Your task to perform on an android device: Do I have any events tomorrow? Image 0: 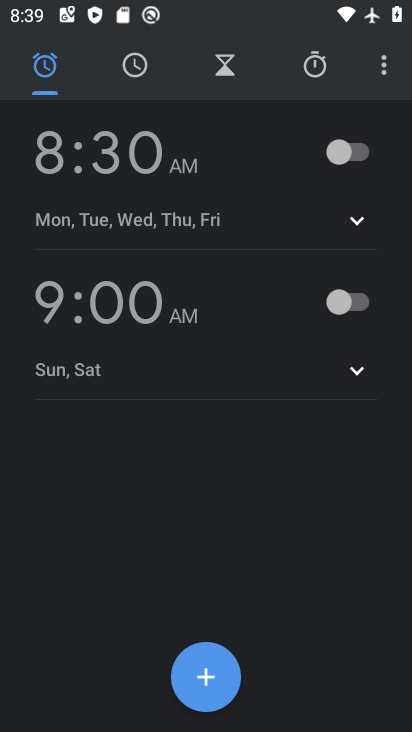
Step 0: press home button
Your task to perform on an android device: Do I have any events tomorrow? Image 1: 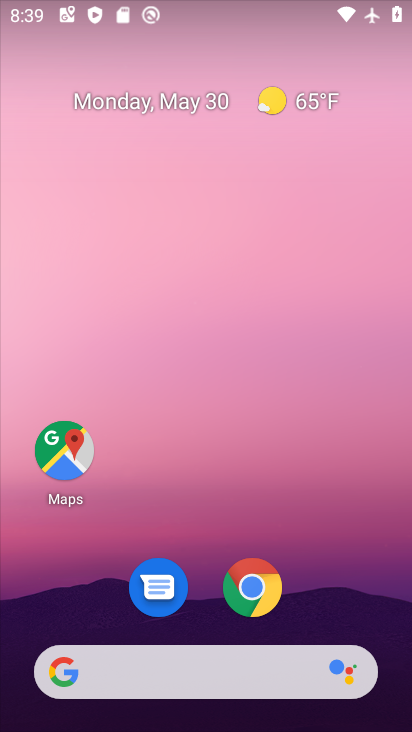
Step 1: drag from (137, 680) to (325, 176)
Your task to perform on an android device: Do I have any events tomorrow? Image 2: 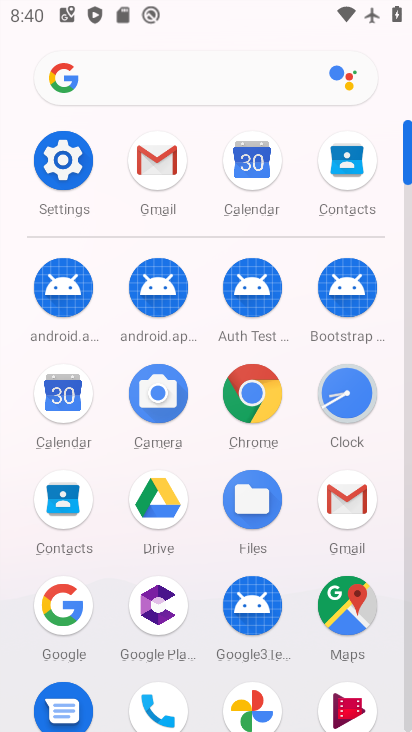
Step 2: click (256, 166)
Your task to perform on an android device: Do I have any events tomorrow? Image 3: 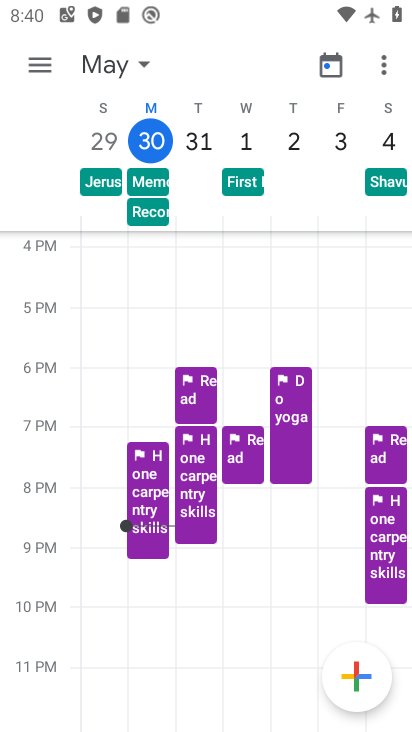
Step 3: click (111, 69)
Your task to perform on an android device: Do I have any events tomorrow? Image 4: 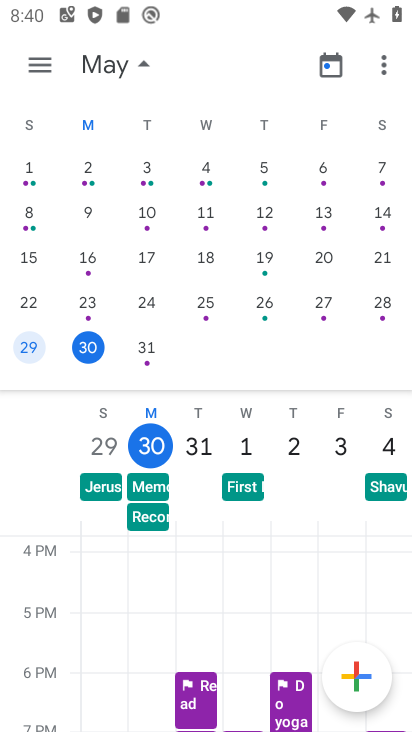
Step 4: click (143, 351)
Your task to perform on an android device: Do I have any events tomorrow? Image 5: 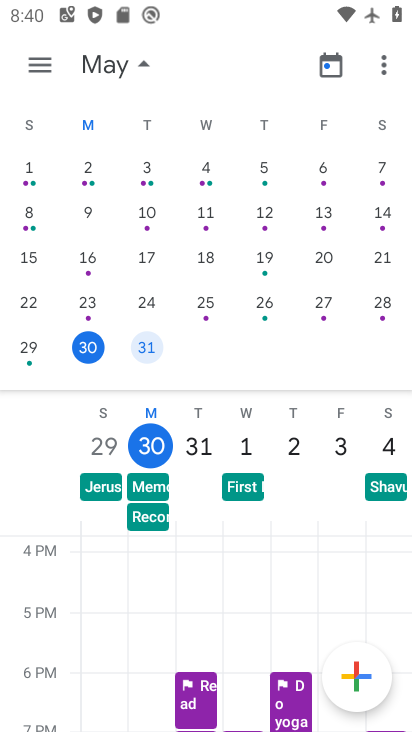
Step 5: click (44, 67)
Your task to perform on an android device: Do I have any events tomorrow? Image 6: 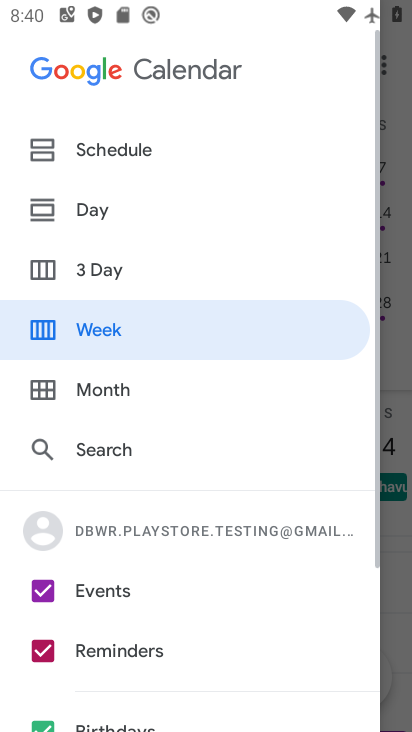
Step 6: click (130, 146)
Your task to perform on an android device: Do I have any events tomorrow? Image 7: 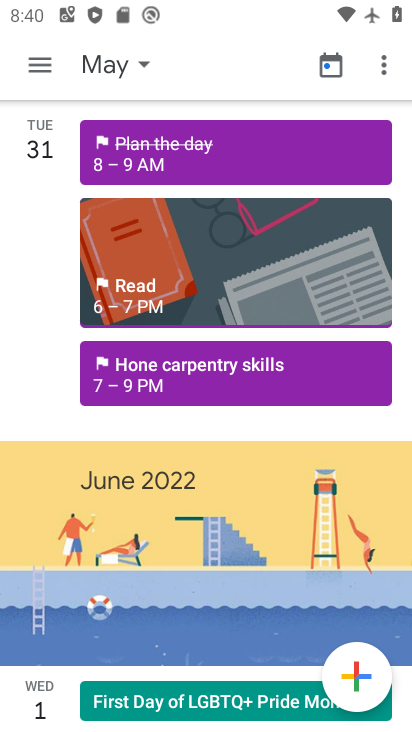
Step 7: click (220, 173)
Your task to perform on an android device: Do I have any events tomorrow? Image 8: 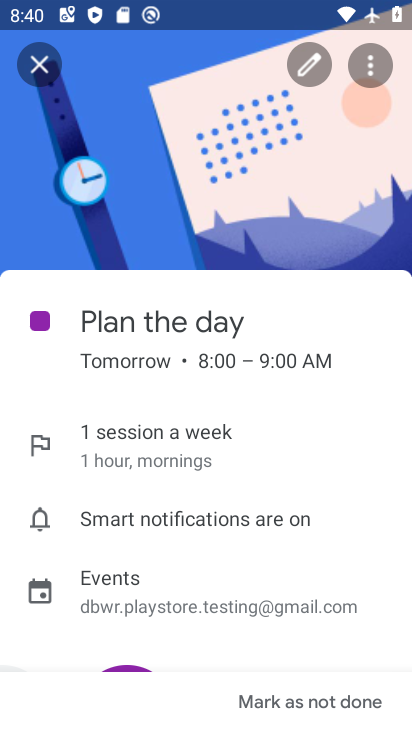
Step 8: task complete